Your task to perform on an android device: Open Amazon Image 0: 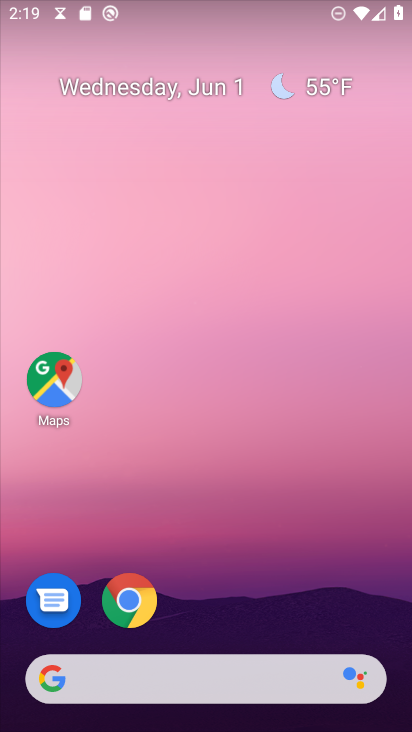
Step 0: click (144, 606)
Your task to perform on an android device: Open Amazon Image 1: 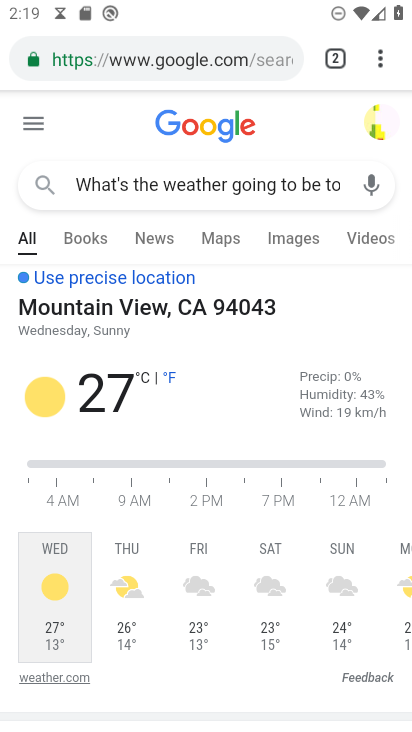
Step 1: click (341, 54)
Your task to perform on an android device: Open Amazon Image 2: 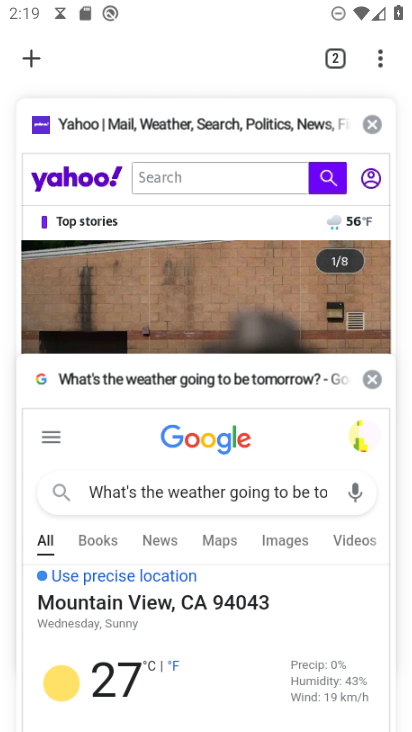
Step 2: click (31, 55)
Your task to perform on an android device: Open Amazon Image 3: 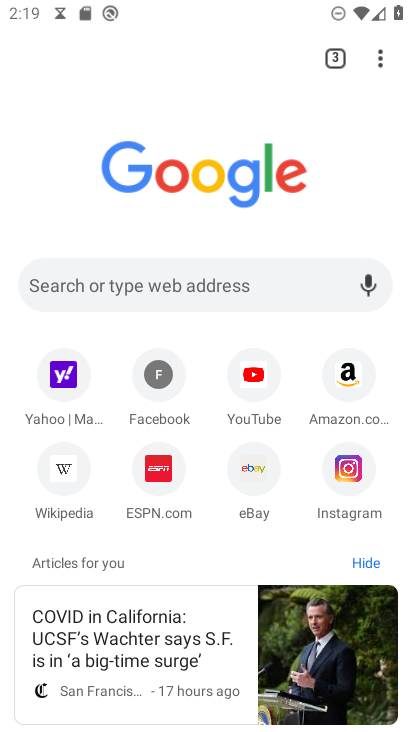
Step 3: click (367, 364)
Your task to perform on an android device: Open Amazon Image 4: 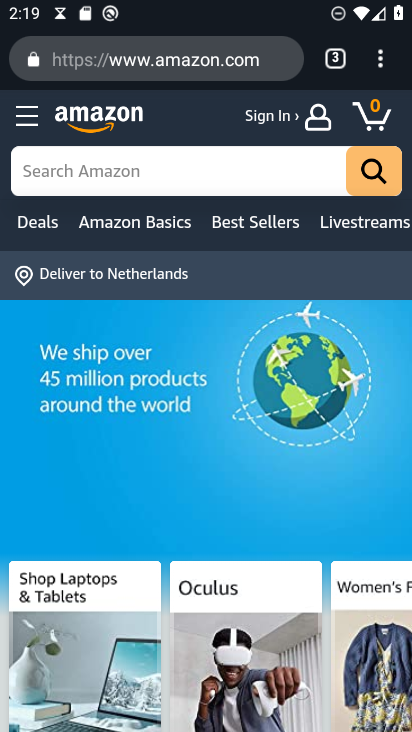
Step 4: task complete